Your task to perform on an android device: Go to Google maps Image 0: 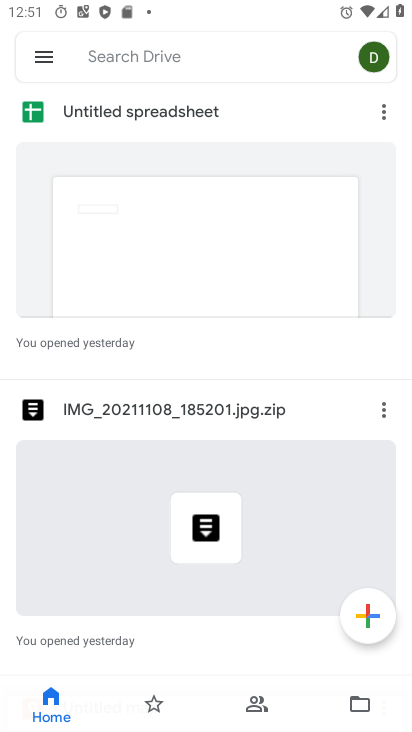
Step 0: press home button
Your task to perform on an android device: Go to Google maps Image 1: 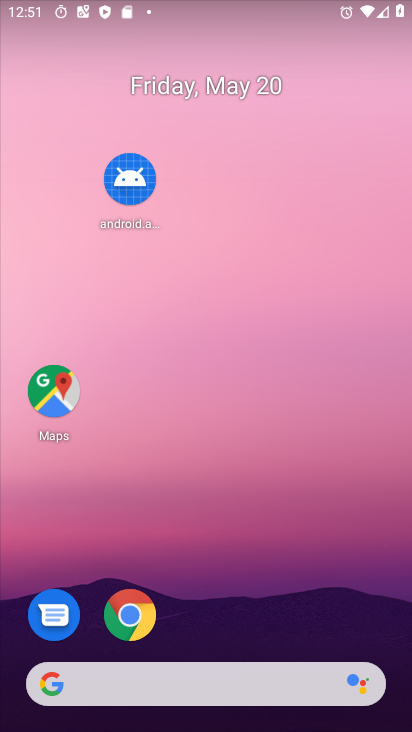
Step 1: click (39, 389)
Your task to perform on an android device: Go to Google maps Image 2: 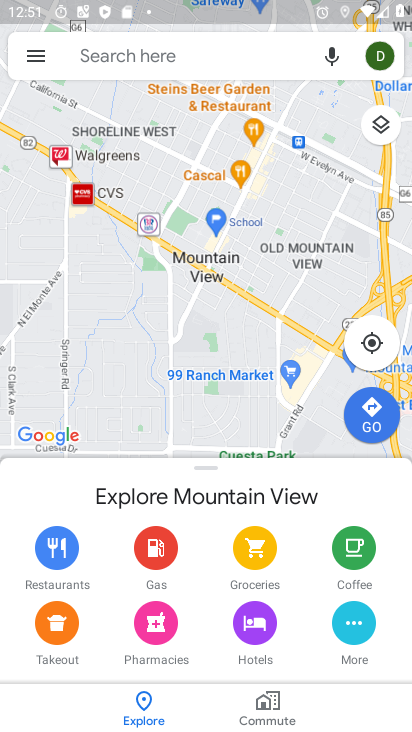
Step 2: task complete